Your task to perform on an android device: Go to sound settings Image 0: 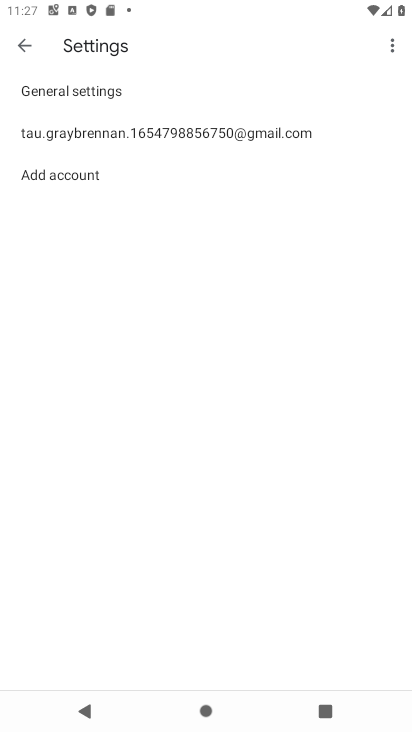
Step 0: press home button
Your task to perform on an android device: Go to sound settings Image 1: 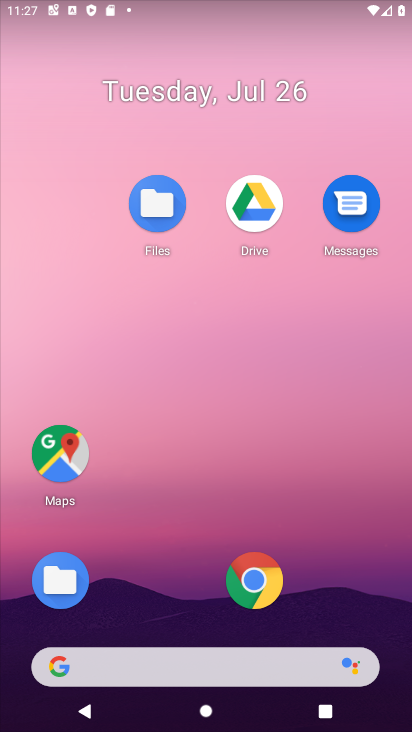
Step 1: drag from (171, 592) to (197, 41)
Your task to perform on an android device: Go to sound settings Image 2: 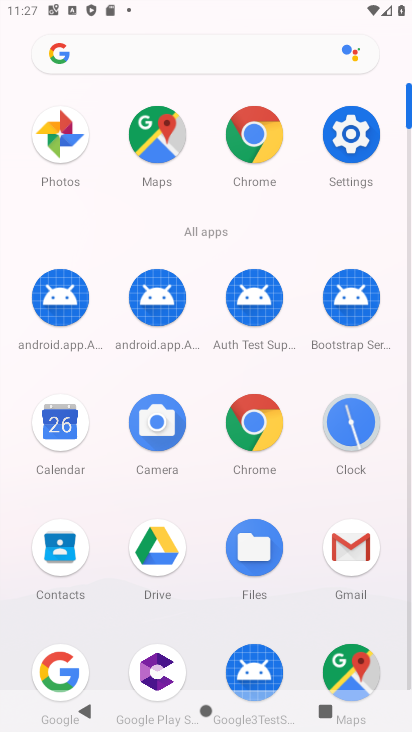
Step 2: click (341, 150)
Your task to perform on an android device: Go to sound settings Image 3: 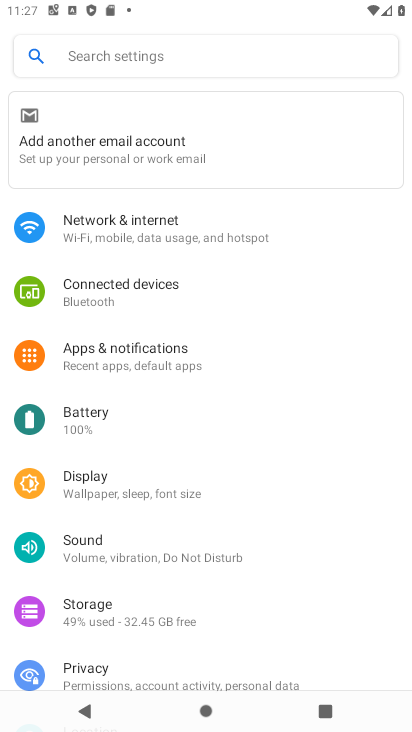
Step 3: click (154, 542)
Your task to perform on an android device: Go to sound settings Image 4: 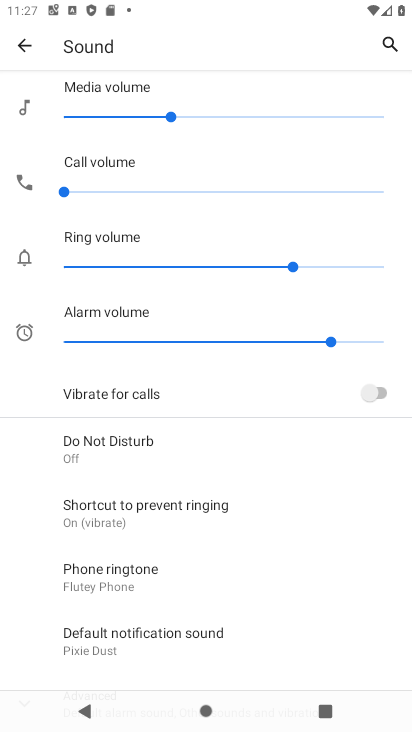
Step 4: task complete